Your task to perform on an android device: toggle notifications settings in the gmail app Image 0: 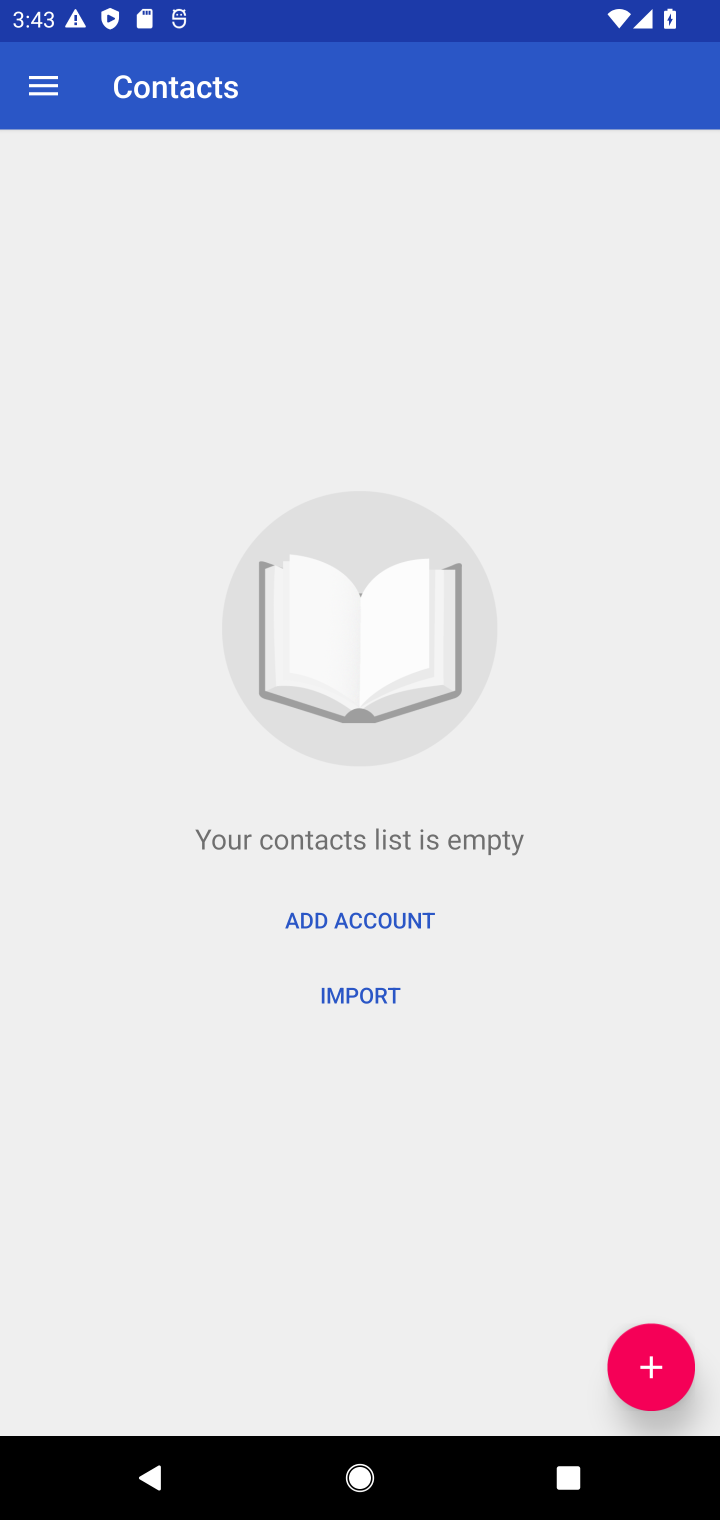
Step 0: press home button
Your task to perform on an android device: toggle notifications settings in the gmail app Image 1: 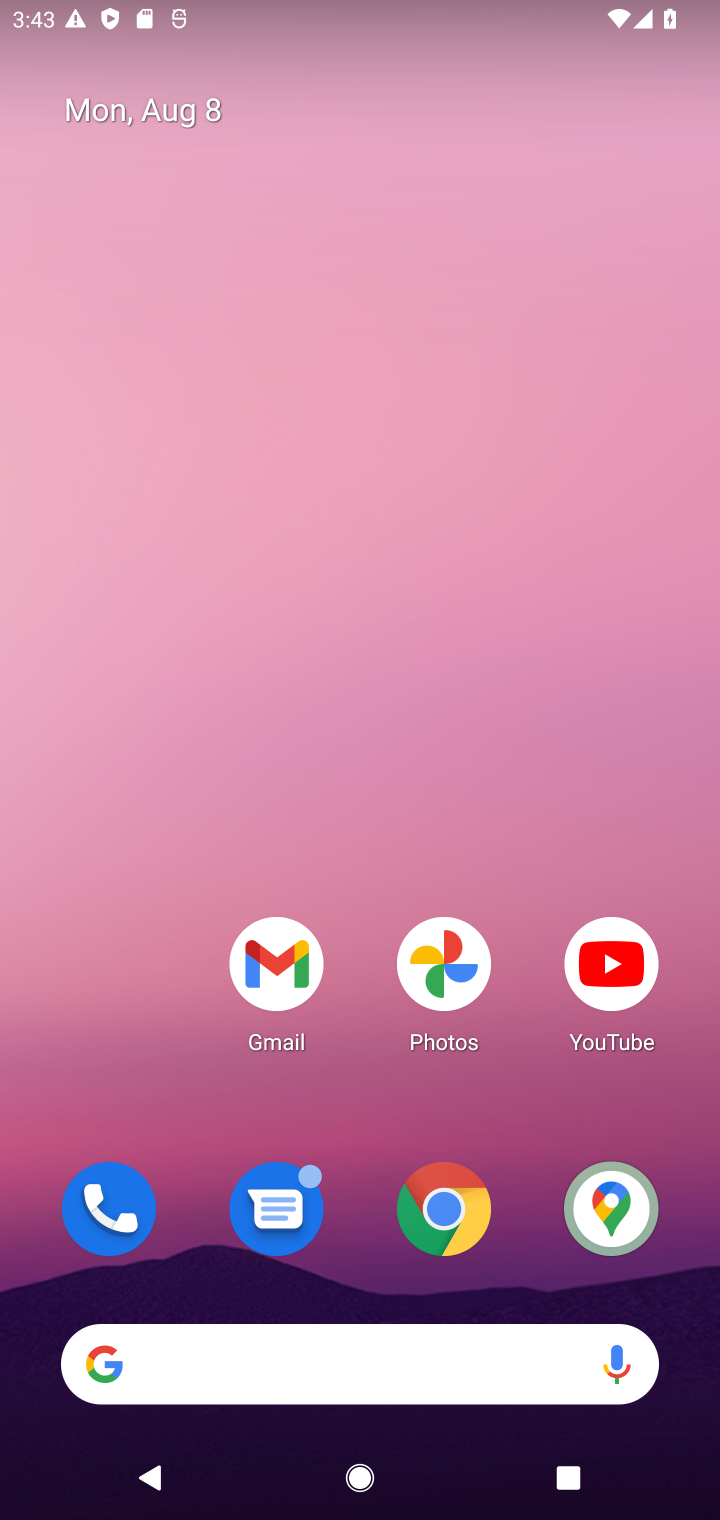
Step 1: drag from (538, 911) to (457, 38)
Your task to perform on an android device: toggle notifications settings in the gmail app Image 2: 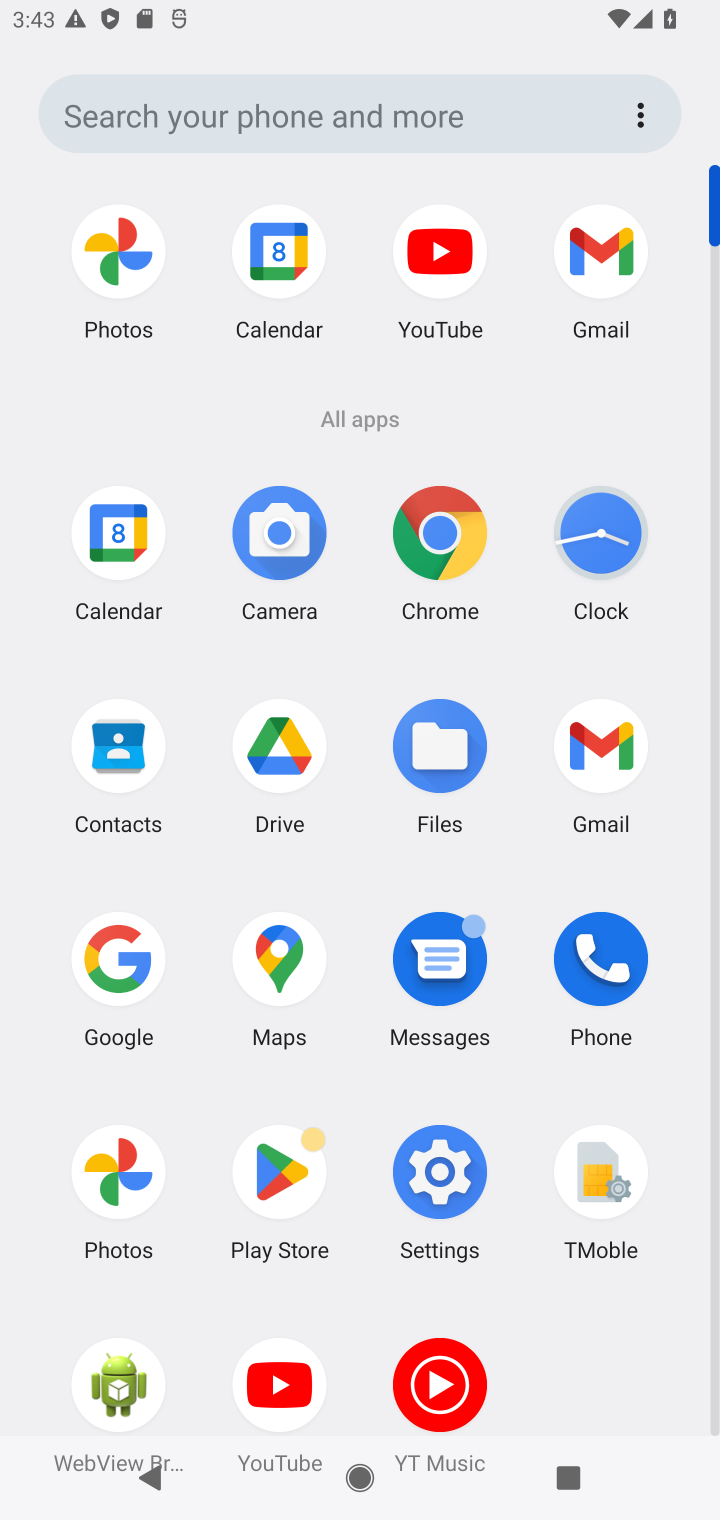
Step 2: click (605, 299)
Your task to perform on an android device: toggle notifications settings in the gmail app Image 3: 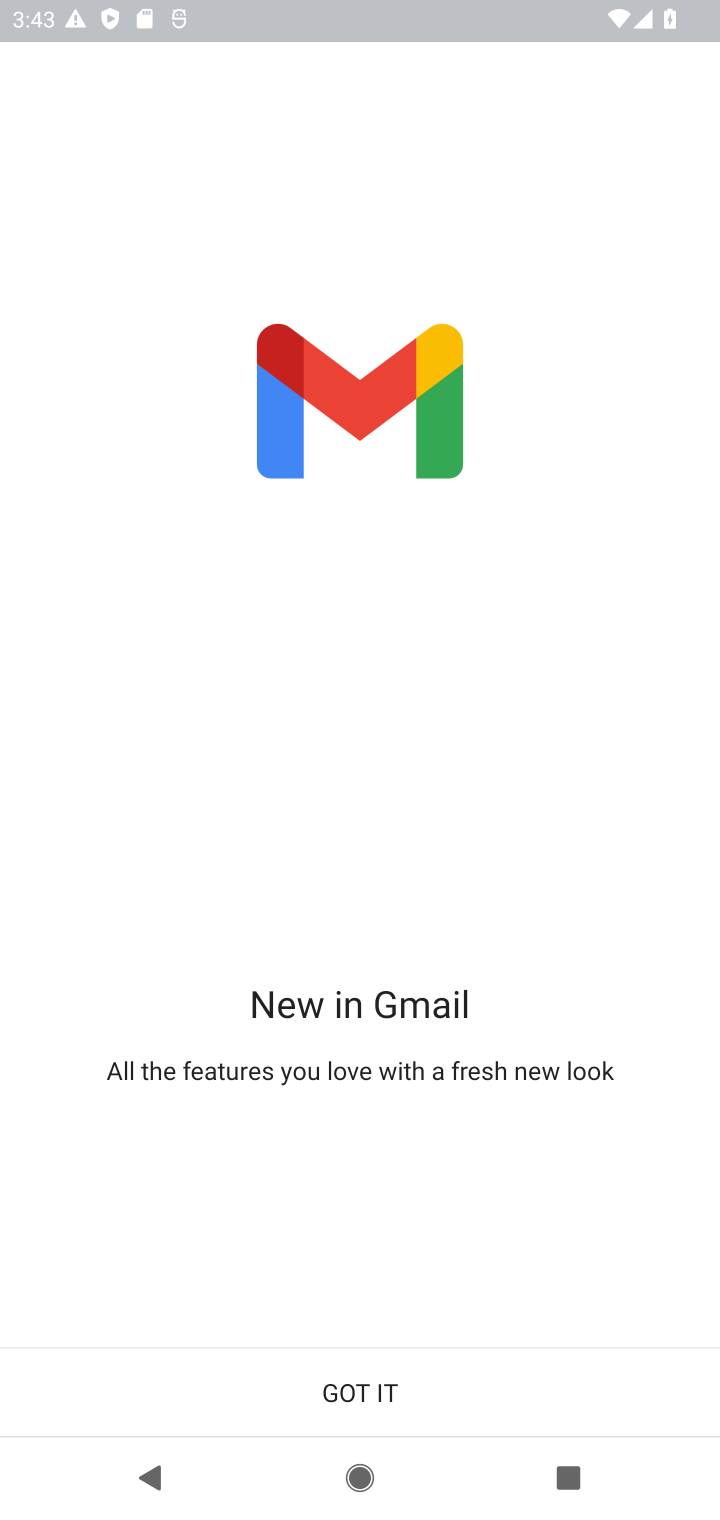
Step 3: click (482, 1426)
Your task to perform on an android device: toggle notifications settings in the gmail app Image 4: 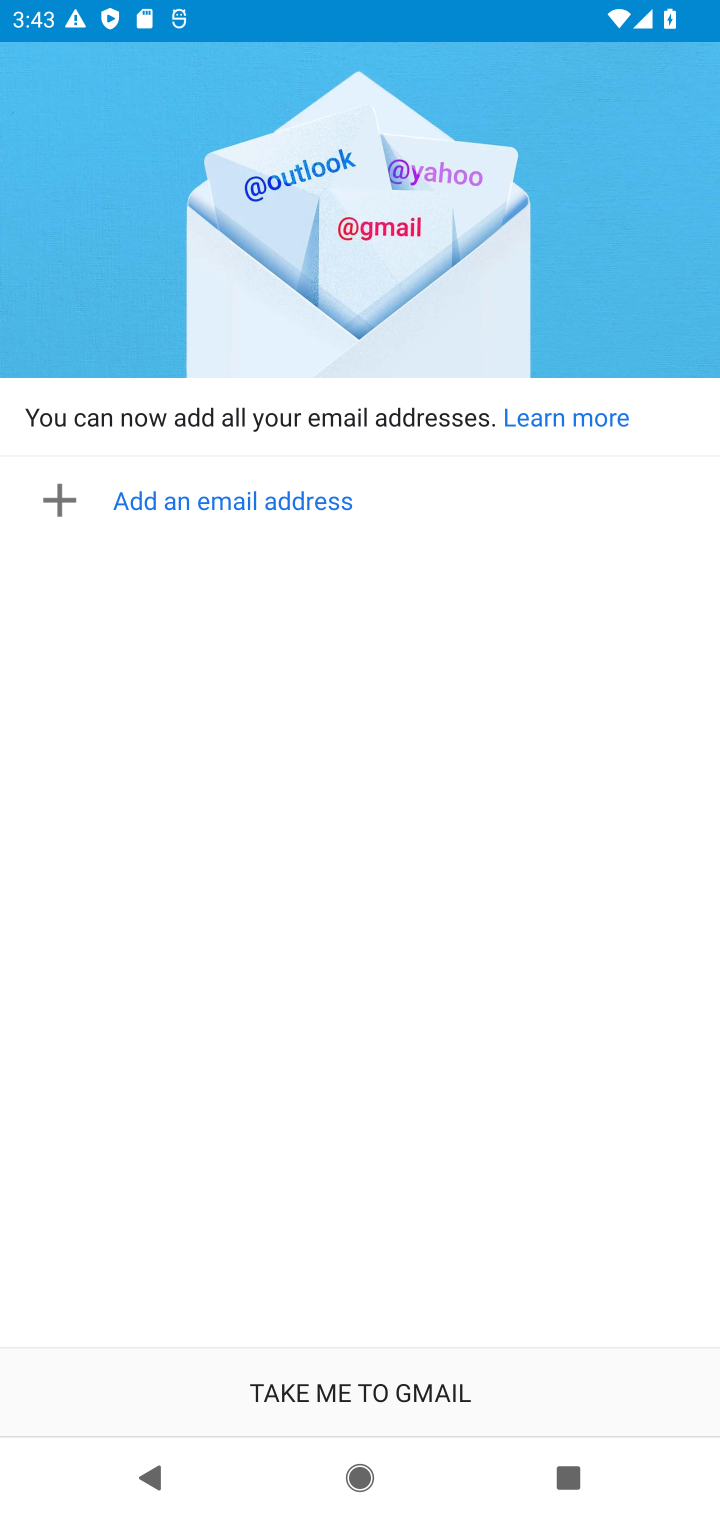
Step 4: task complete